Your task to perform on an android device: change the clock display to digital Image 0: 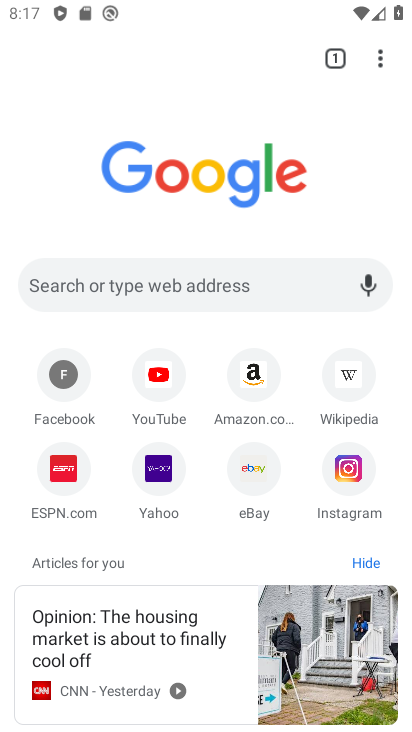
Step 0: press home button
Your task to perform on an android device: change the clock display to digital Image 1: 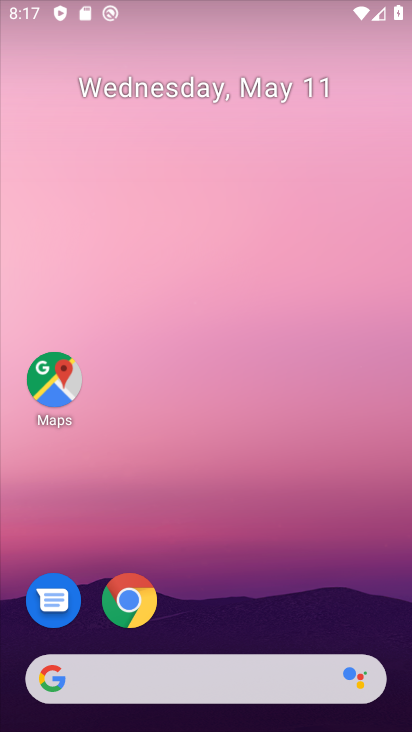
Step 1: drag from (248, 607) to (238, 116)
Your task to perform on an android device: change the clock display to digital Image 2: 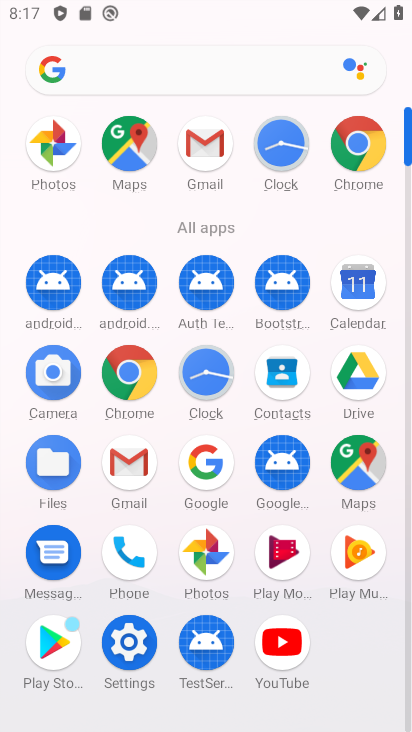
Step 2: click (284, 144)
Your task to perform on an android device: change the clock display to digital Image 3: 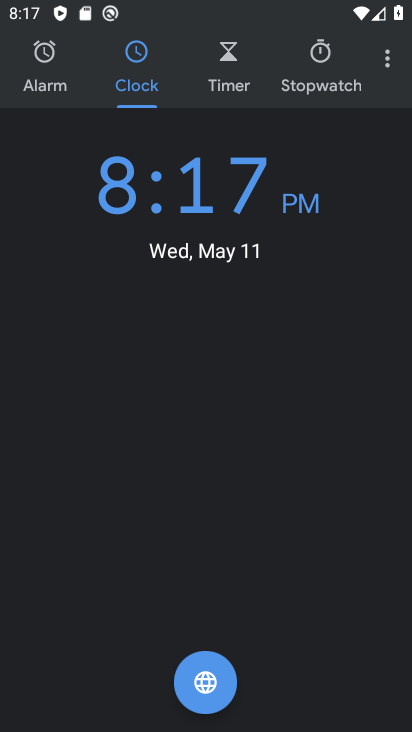
Step 3: click (384, 58)
Your task to perform on an android device: change the clock display to digital Image 4: 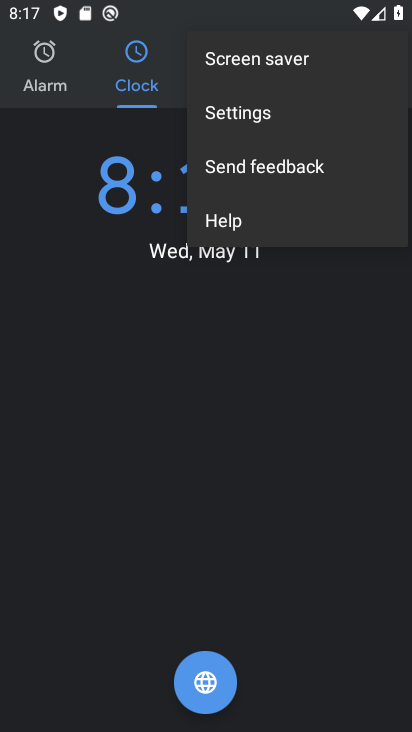
Step 4: click (238, 108)
Your task to perform on an android device: change the clock display to digital Image 5: 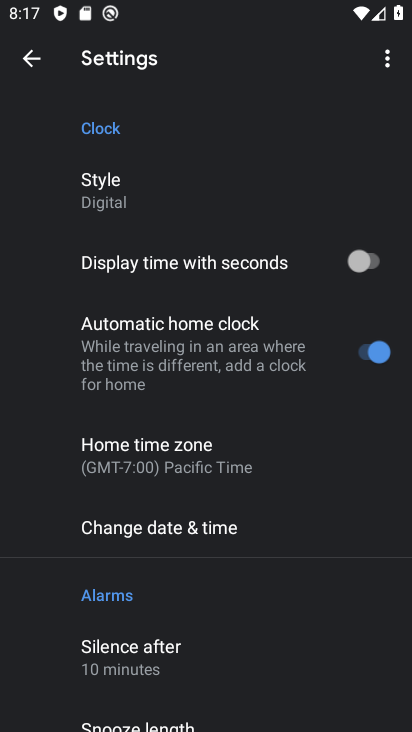
Step 5: click (151, 189)
Your task to perform on an android device: change the clock display to digital Image 6: 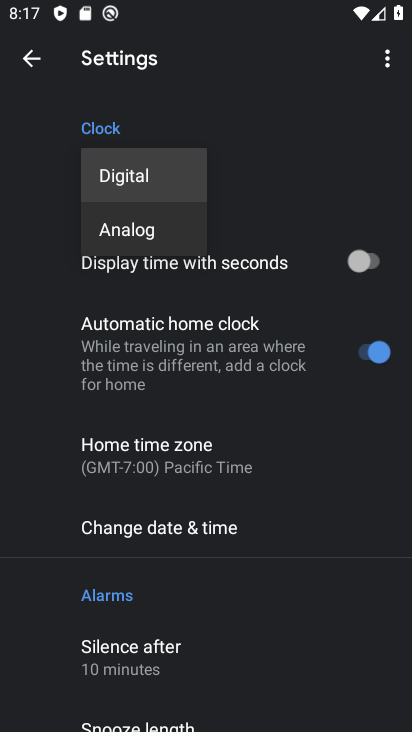
Step 6: click (151, 189)
Your task to perform on an android device: change the clock display to digital Image 7: 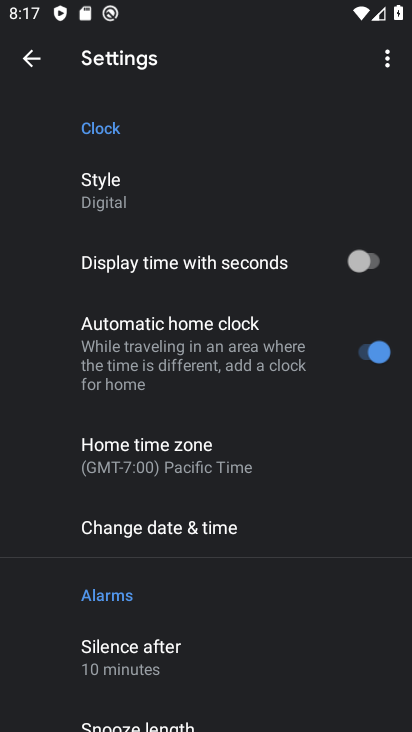
Step 7: task complete